Your task to perform on an android device: turn off notifications in google photos Image 0: 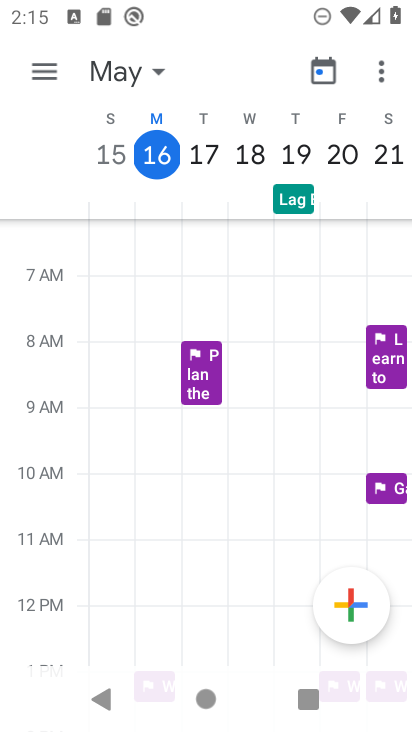
Step 0: press home button
Your task to perform on an android device: turn off notifications in google photos Image 1: 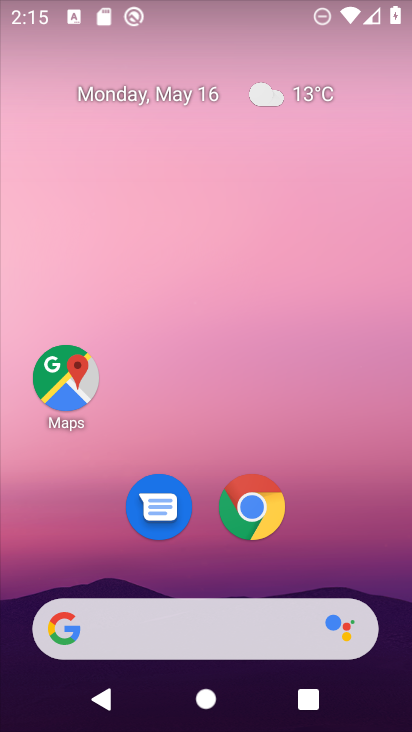
Step 1: drag from (239, 572) to (224, 272)
Your task to perform on an android device: turn off notifications in google photos Image 2: 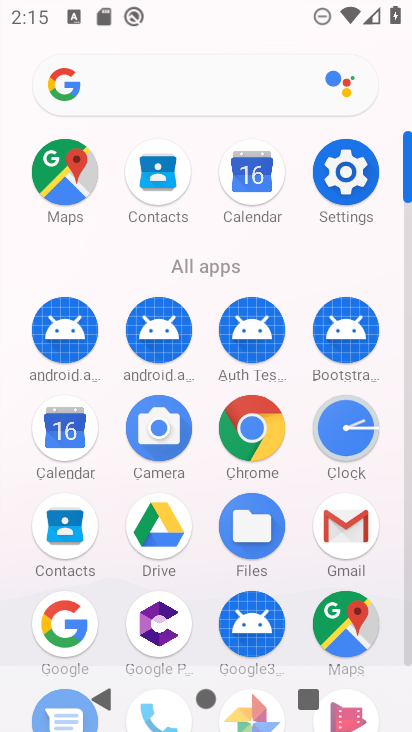
Step 2: drag from (204, 297) to (199, 108)
Your task to perform on an android device: turn off notifications in google photos Image 3: 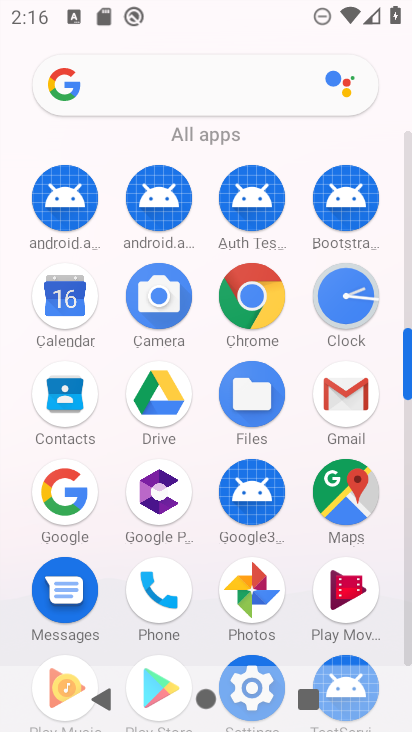
Step 3: click (256, 588)
Your task to perform on an android device: turn off notifications in google photos Image 4: 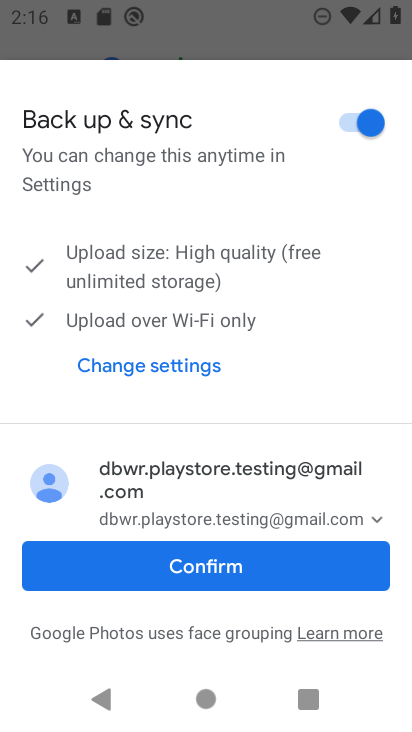
Step 4: click (256, 584)
Your task to perform on an android device: turn off notifications in google photos Image 5: 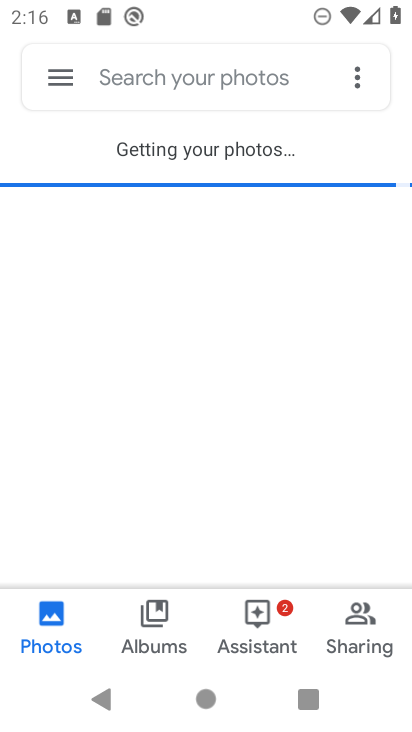
Step 5: click (66, 94)
Your task to perform on an android device: turn off notifications in google photos Image 6: 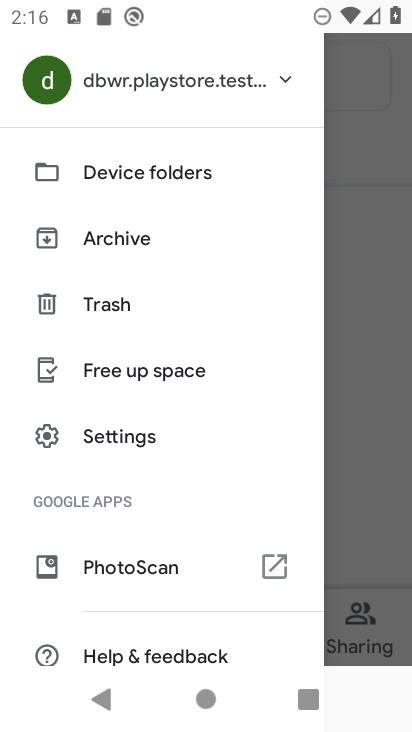
Step 6: click (122, 445)
Your task to perform on an android device: turn off notifications in google photos Image 7: 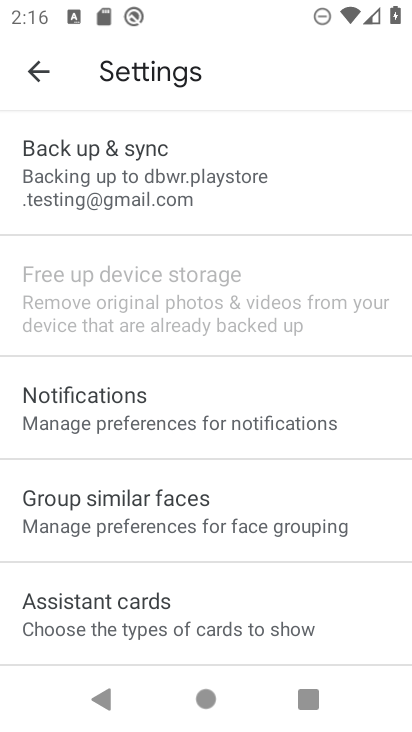
Step 7: click (225, 208)
Your task to perform on an android device: turn off notifications in google photos Image 8: 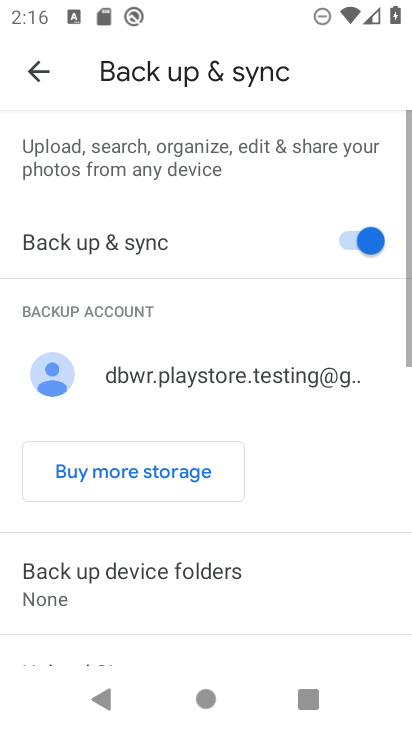
Step 8: drag from (206, 487) to (210, 154)
Your task to perform on an android device: turn off notifications in google photos Image 9: 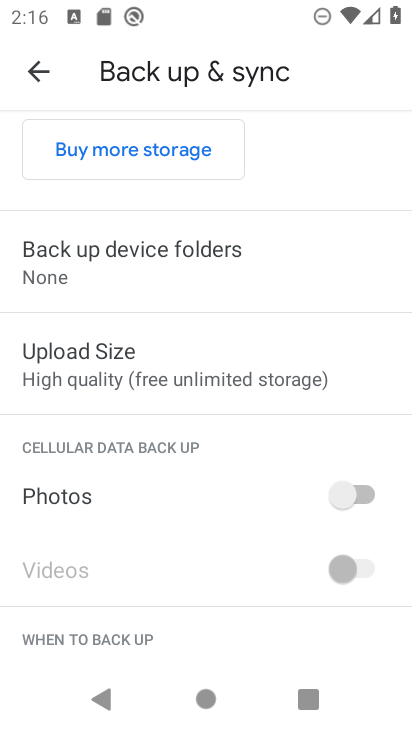
Step 9: drag from (213, 477) to (193, 187)
Your task to perform on an android device: turn off notifications in google photos Image 10: 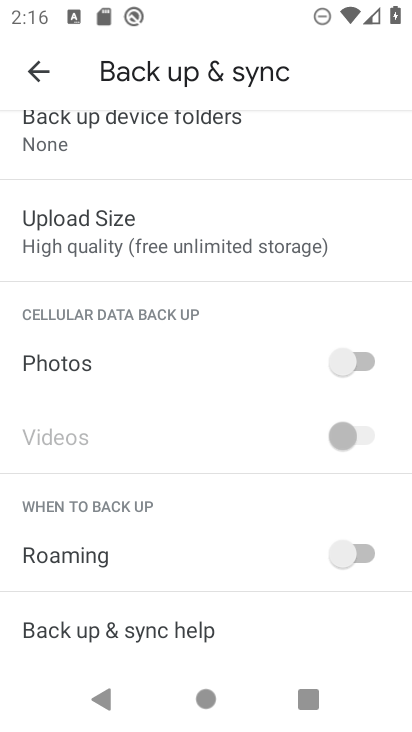
Step 10: press back button
Your task to perform on an android device: turn off notifications in google photos Image 11: 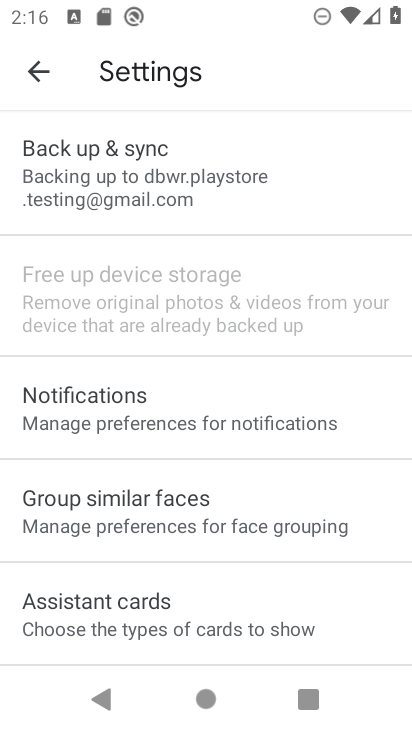
Step 11: click (33, 89)
Your task to perform on an android device: turn off notifications in google photos Image 12: 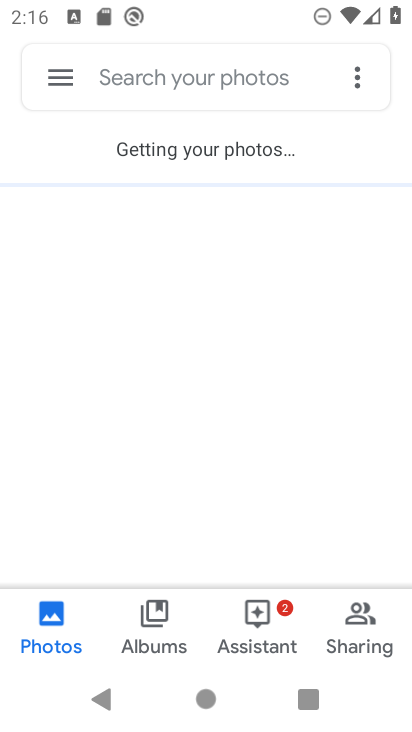
Step 12: click (72, 88)
Your task to perform on an android device: turn off notifications in google photos Image 13: 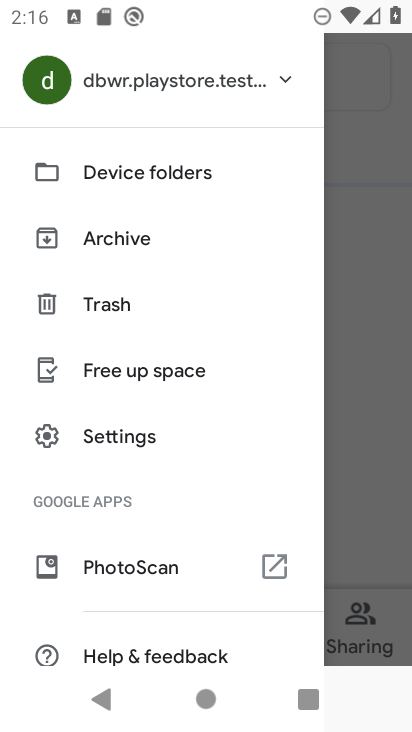
Step 13: click (141, 440)
Your task to perform on an android device: turn off notifications in google photos Image 14: 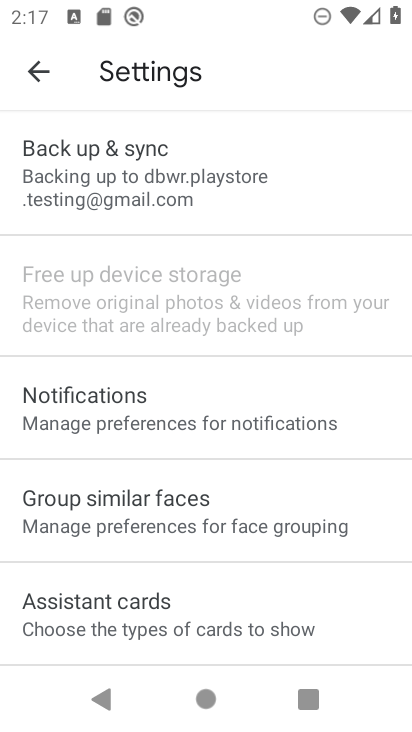
Step 14: drag from (278, 548) to (257, 247)
Your task to perform on an android device: turn off notifications in google photos Image 15: 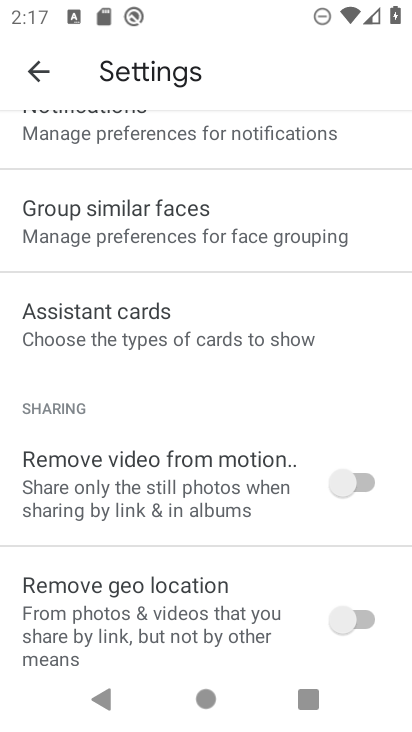
Step 15: drag from (223, 183) to (235, 425)
Your task to perform on an android device: turn off notifications in google photos Image 16: 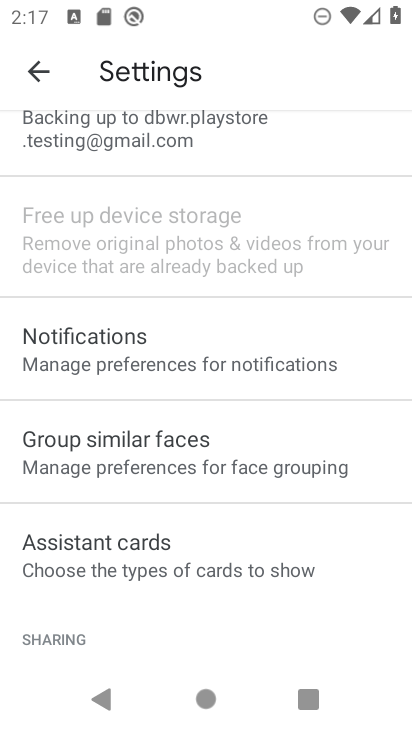
Step 16: click (190, 369)
Your task to perform on an android device: turn off notifications in google photos Image 17: 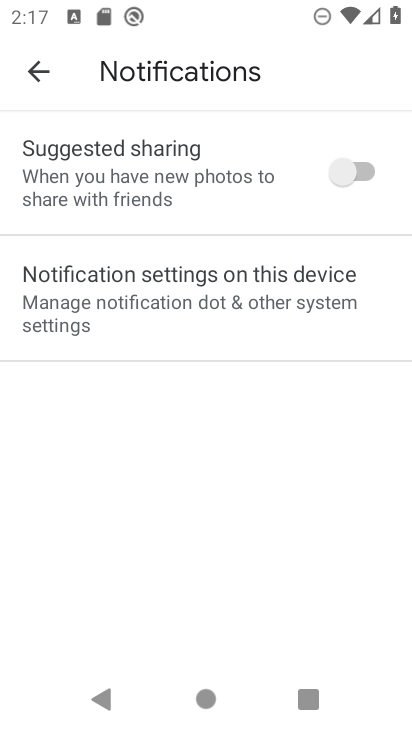
Step 17: click (282, 291)
Your task to perform on an android device: turn off notifications in google photos Image 18: 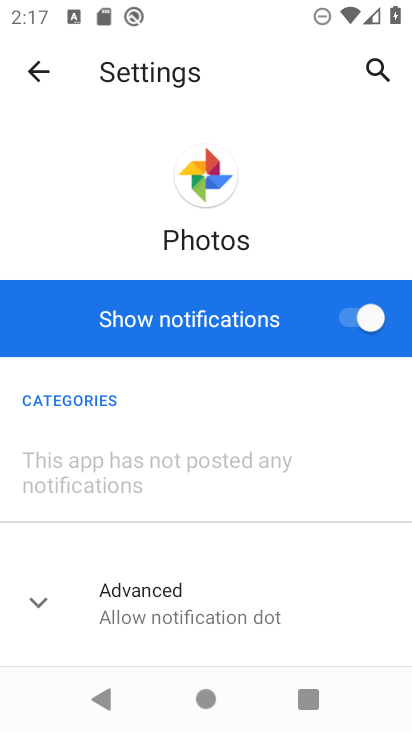
Step 18: click (368, 303)
Your task to perform on an android device: turn off notifications in google photos Image 19: 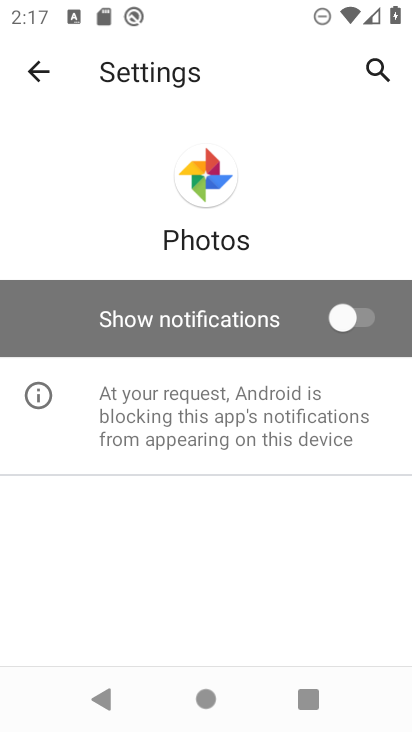
Step 19: task complete